Your task to perform on an android device: set the timer Image 0: 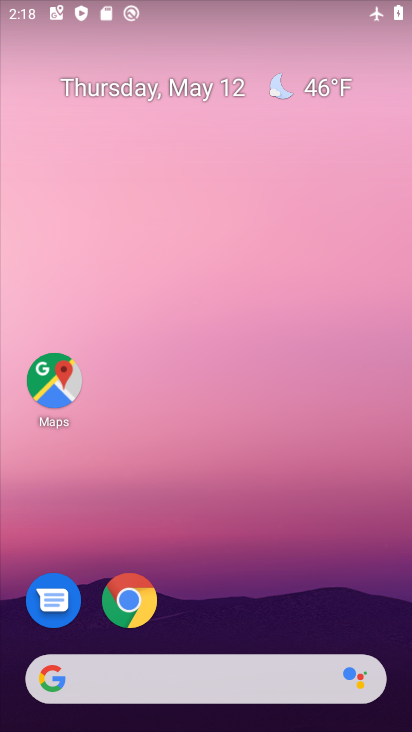
Step 0: drag from (230, 611) to (257, 45)
Your task to perform on an android device: set the timer Image 1: 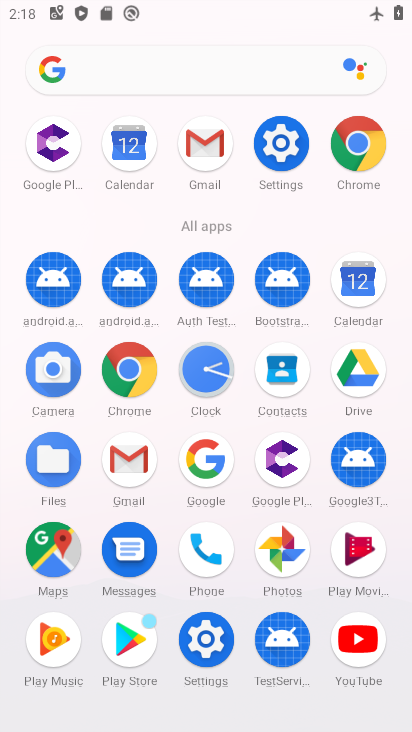
Step 1: click (217, 376)
Your task to perform on an android device: set the timer Image 2: 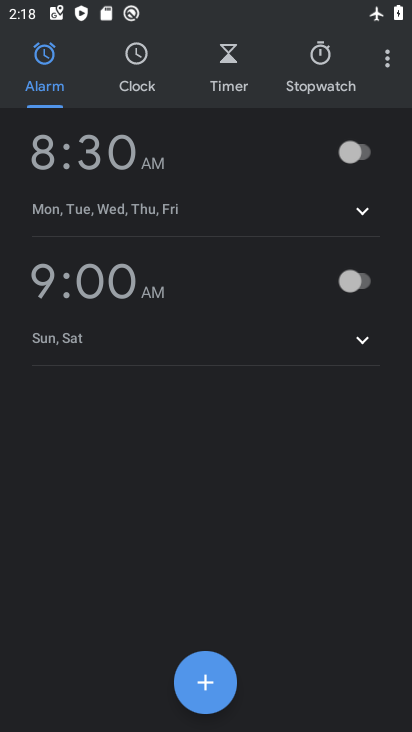
Step 2: click (231, 69)
Your task to perform on an android device: set the timer Image 3: 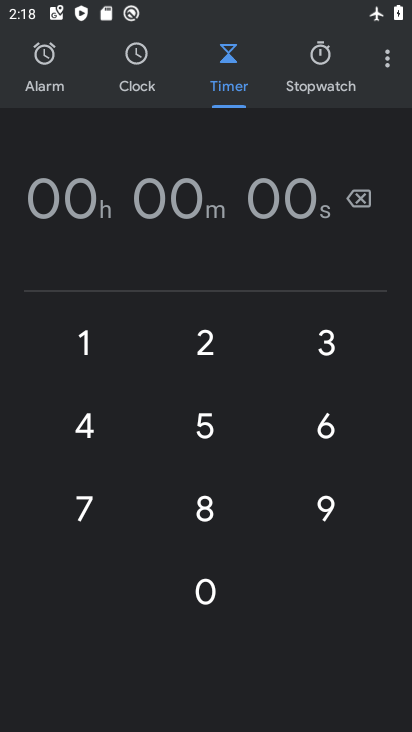
Step 3: click (215, 437)
Your task to perform on an android device: set the timer Image 4: 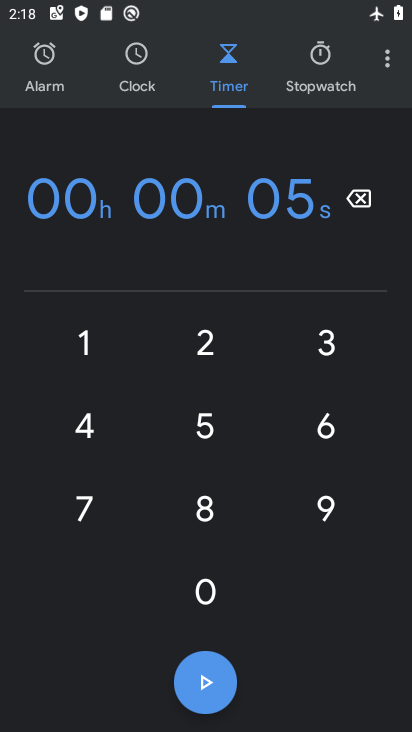
Step 4: click (322, 360)
Your task to perform on an android device: set the timer Image 5: 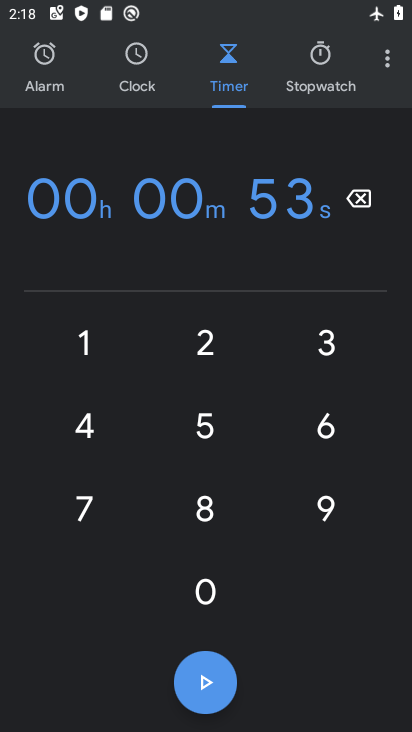
Step 5: click (203, 510)
Your task to perform on an android device: set the timer Image 6: 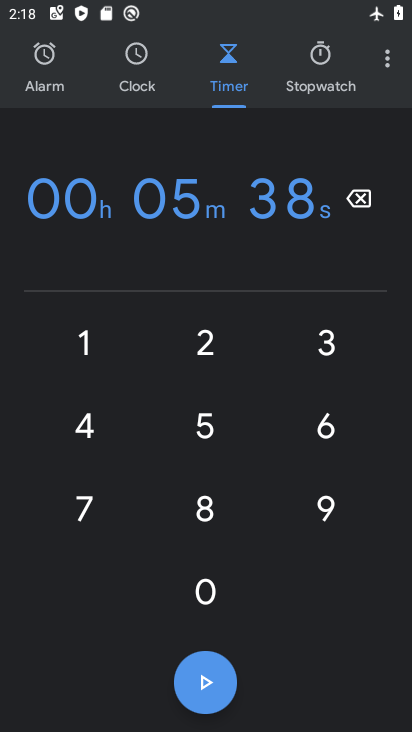
Step 6: click (210, 687)
Your task to perform on an android device: set the timer Image 7: 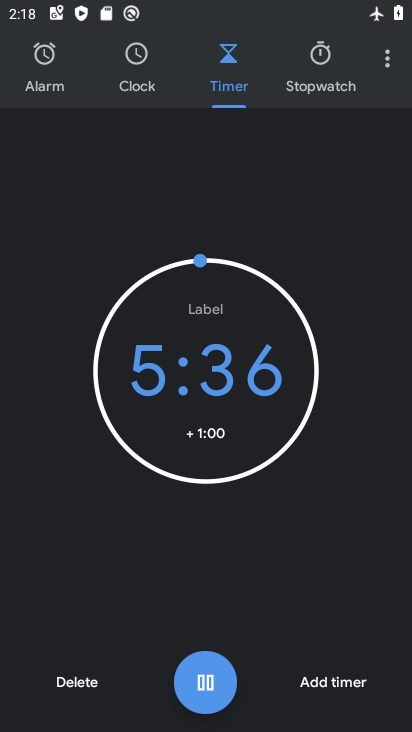
Step 7: task complete